Your task to perform on an android device: change the clock display to analog Image 0: 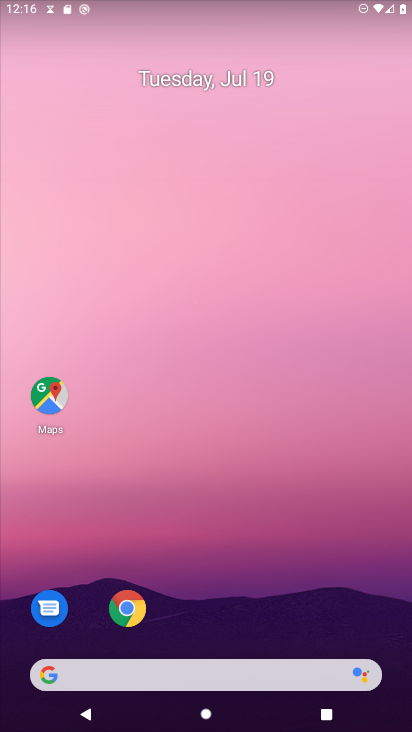
Step 0: drag from (290, 701) to (304, 151)
Your task to perform on an android device: change the clock display to analog Image 1: 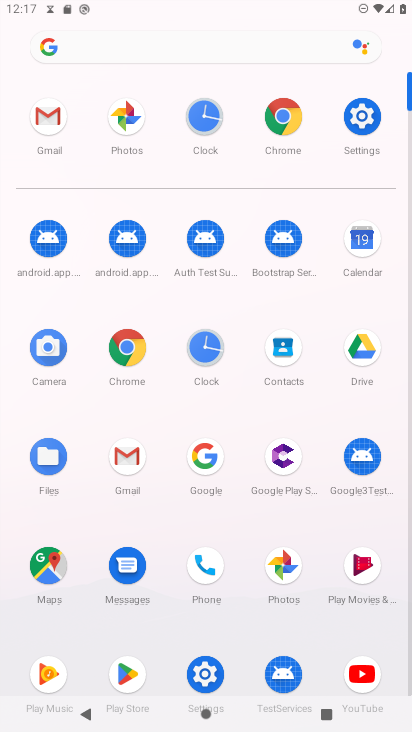
Step 1: click (189, 351)
Your task to perform on an android device: change the clock display to analog Image 2: 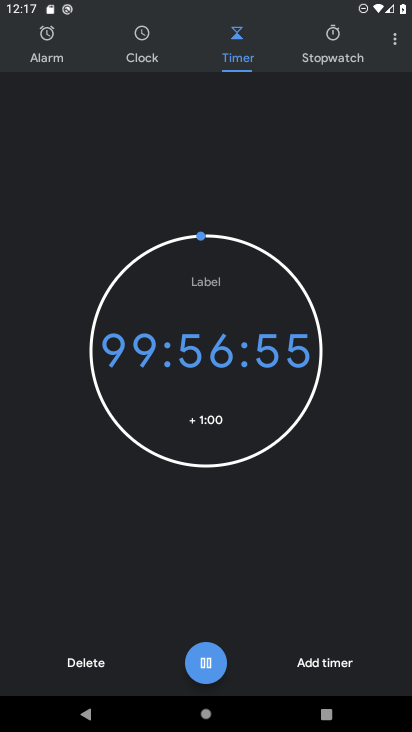
Step 2: click (394, 48)
Your task to perform on an android device: change the clock display to analog Image 3: 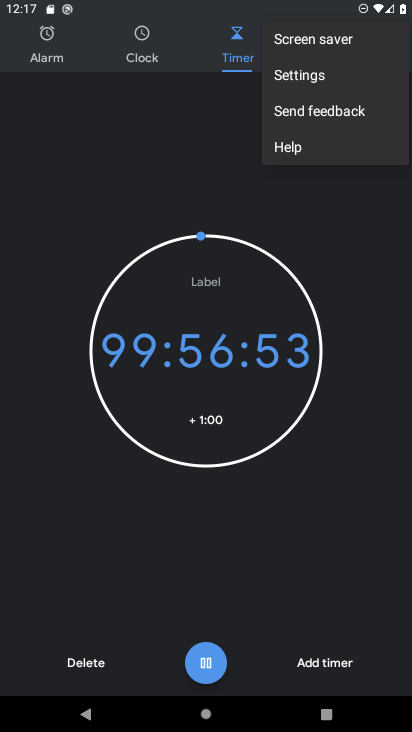
Step 3: click (331, 70)
Your task to perform on an android device: change the clock display to analog Image 4: 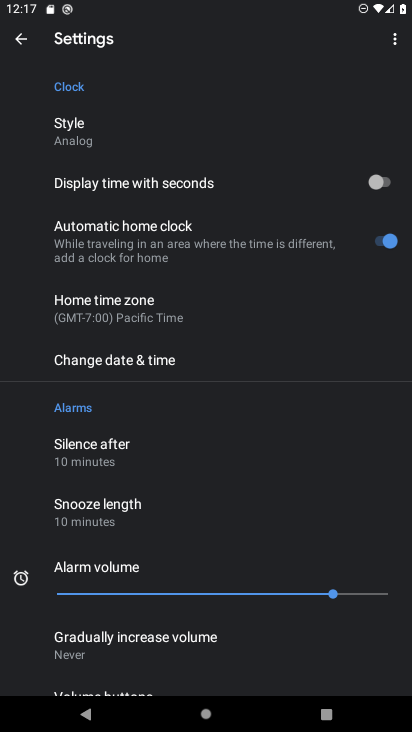
Step 4: task complete